Your task to perform on an android device: Search for pizza restaurants on Maps Image 0: 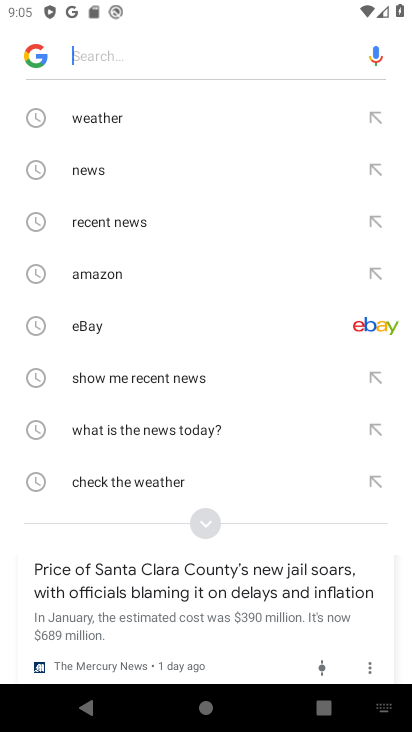
Step 0: press home button
Your task to perform on an android device: Search for pizza restaurants on Maps Image 1: 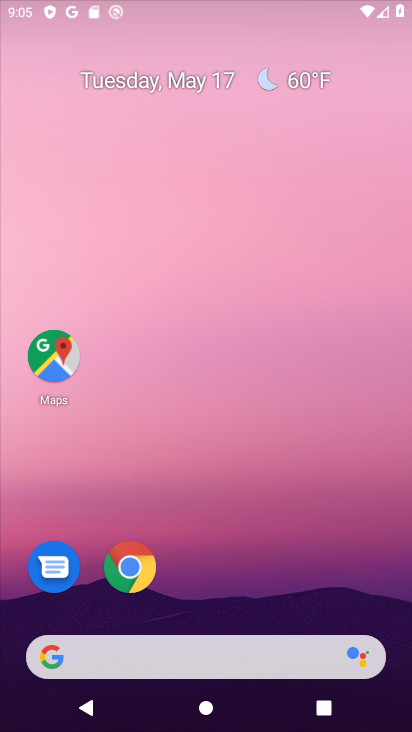
Step 1: drag from (362, 607) to (280, 53)
Your task to perform on an android device: Search for pizza restaurants on Maps Image 2: 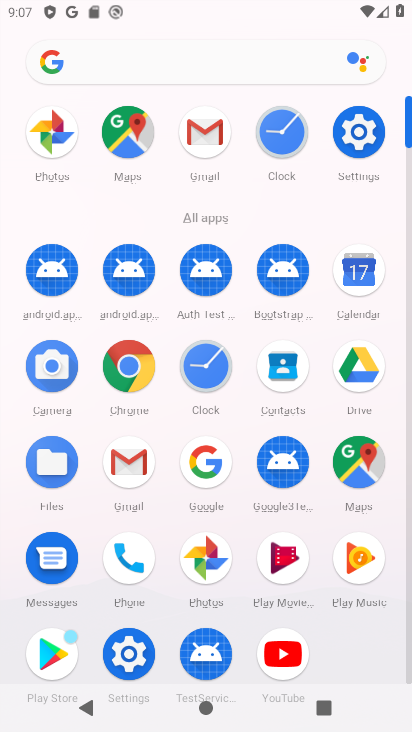
Step 2: click (355, 454)
Your task to perform on an android device: Search for pizza restaurants on Maps Image 3: 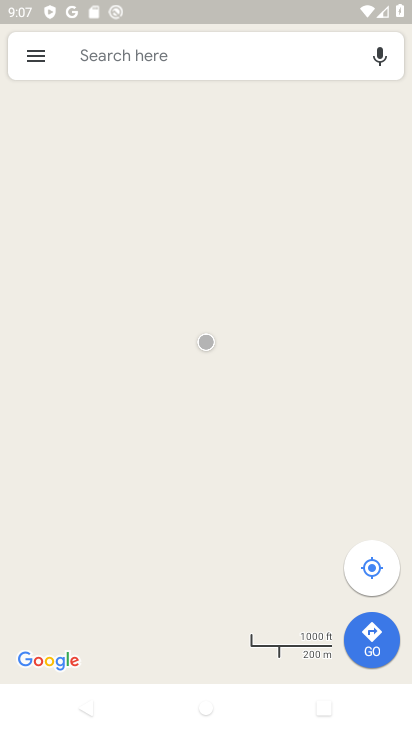
Step 3: click (132, 59)
Your task to perform on an android device: Search for pizza restaurants on Maps Image 4: 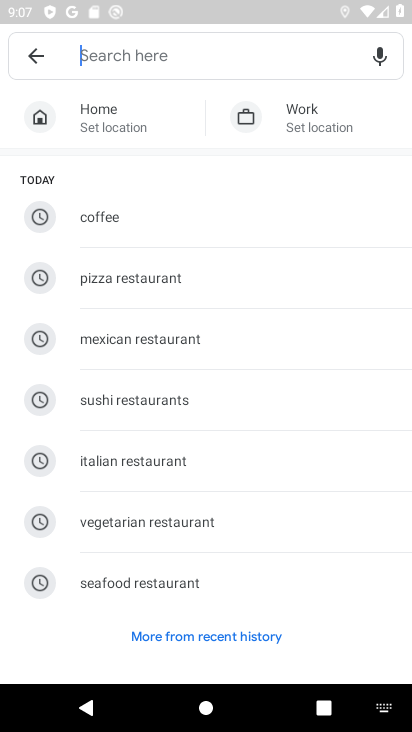
Step 4: click (164, 282)
Your task to perform on an android device: Search for pizza restaurants on Maps Image 5: 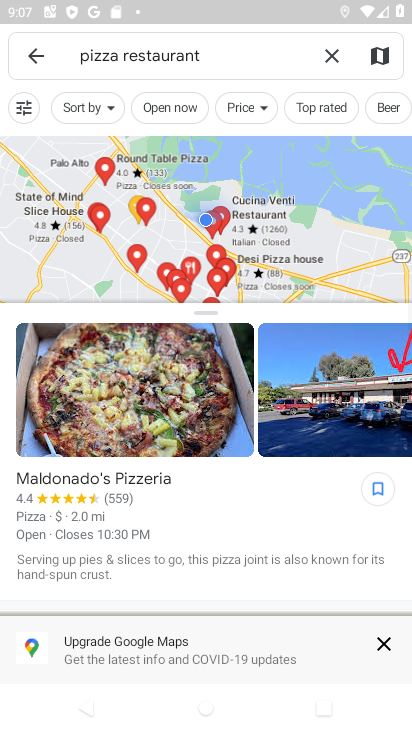
Step 5: task complete